Your task to perform on an android device: change the clock style Image 0: 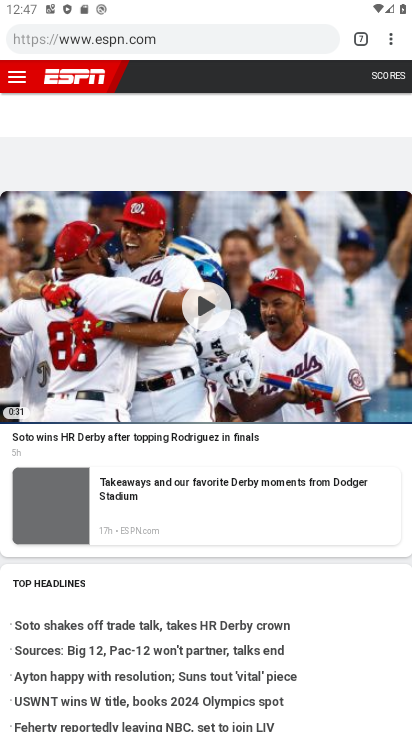
Step 0: press home button
Your task to perform on an android device: change the clock style Image 1: 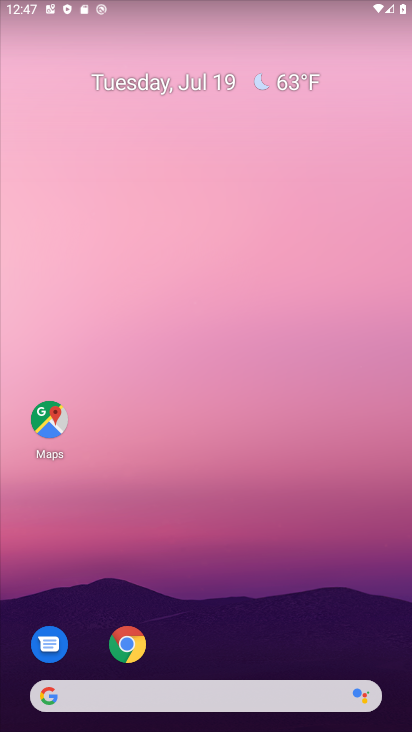
Step 1: drag from (216, 728) to (216, 153)
Your task to perform on an android device: change the clock style Image 2: 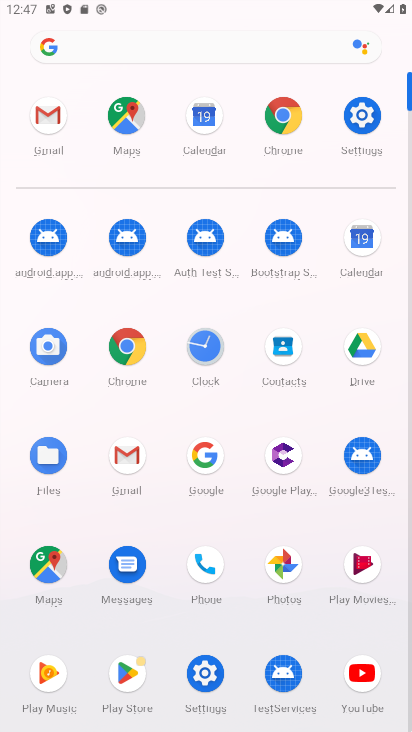
Step 2: click (208, 343)
Your task to perform on an android device: change the clock style Image 3: 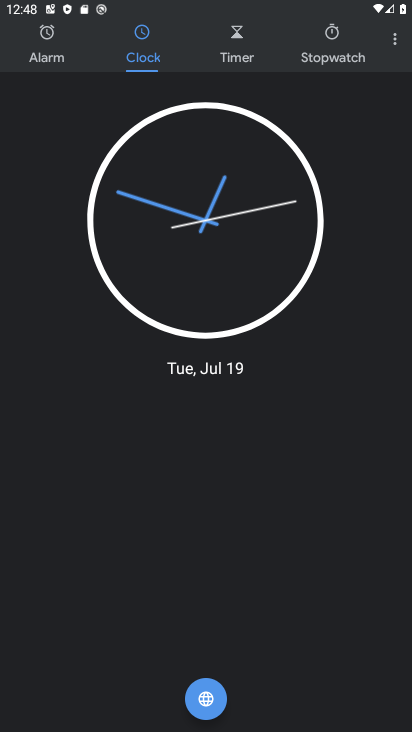
Step 3: click (395, 42)
Your task to perform on an android device: change the clock style Image 4: 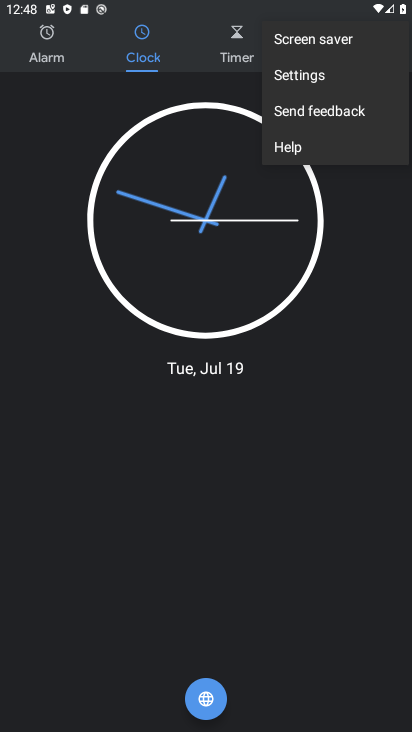
Step 4: click (299, 76)
Your task to perform on an android device: change the clock style Image 5: 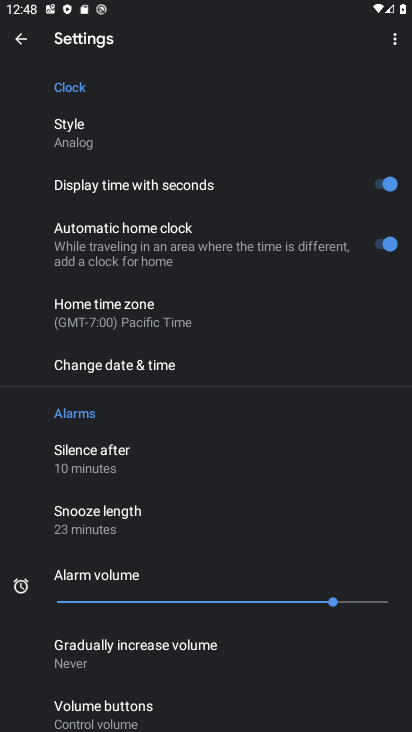
Step 5: click (77, 132)
Your task to perform on an android device: change the clock style Image 6: 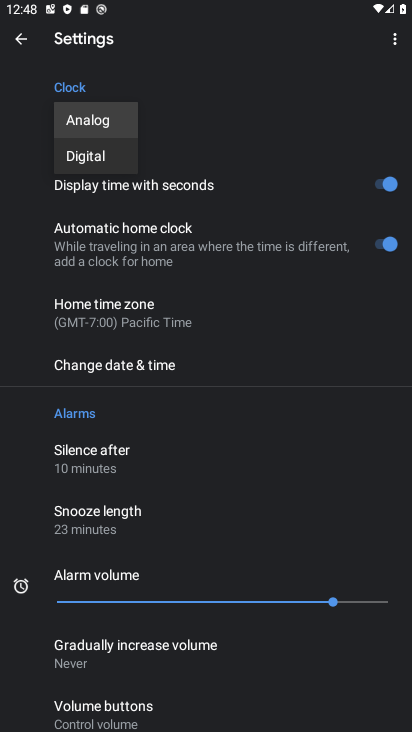
Step 6: click (90, 157)
Your task to perform on an android device: change the clock style Image 7: 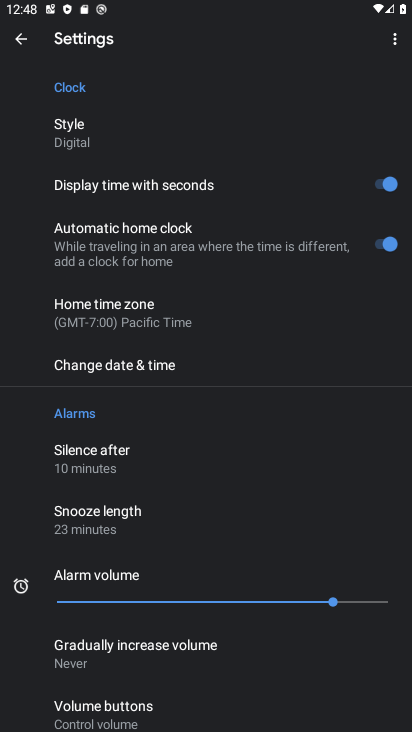
Step 7: task complete